Your task to perform on an android device: Open accessibility settings Image 0: 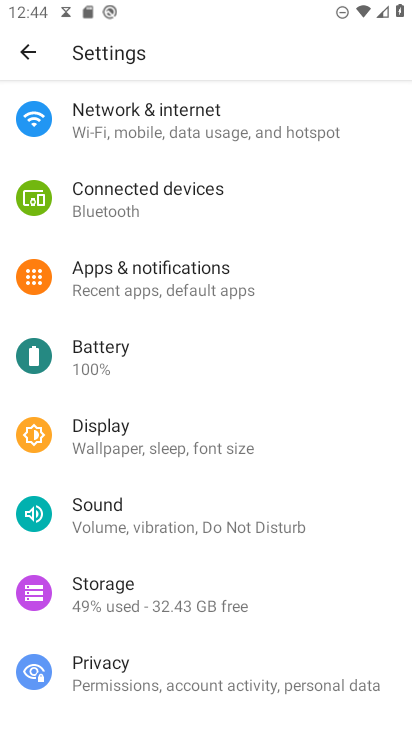
Step 0: press home button
Your task to perform on an android device: Open accessibility settings Image 1: 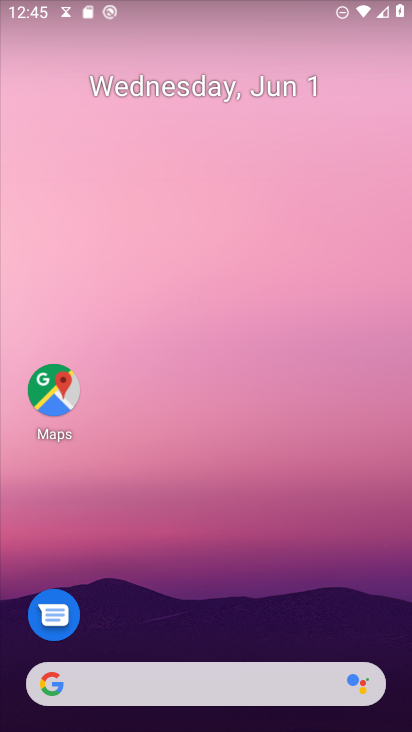
Step 1: drag from (175, 626) to (229, 31)
Your task to perform on an android device: Open accessibility settings Image 2: 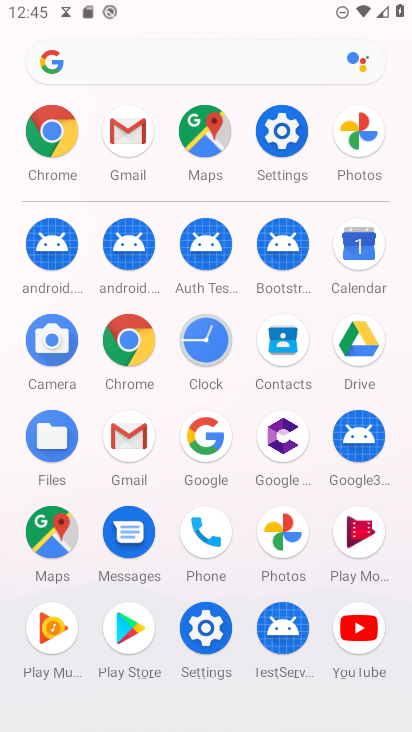
Step 2: click (278, 139)
Your task to perform on an android device: Open accessibility settings Image 3: 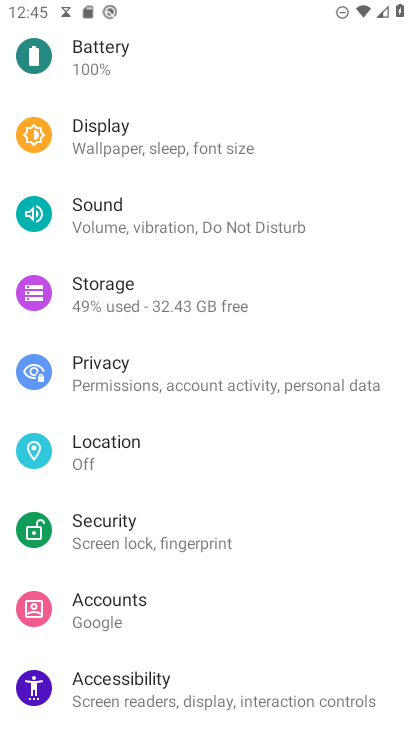
Step 3: drag from (260, 530) to (289, 335)
Your task to perform on an android device: Open accessibility settings Image 4: 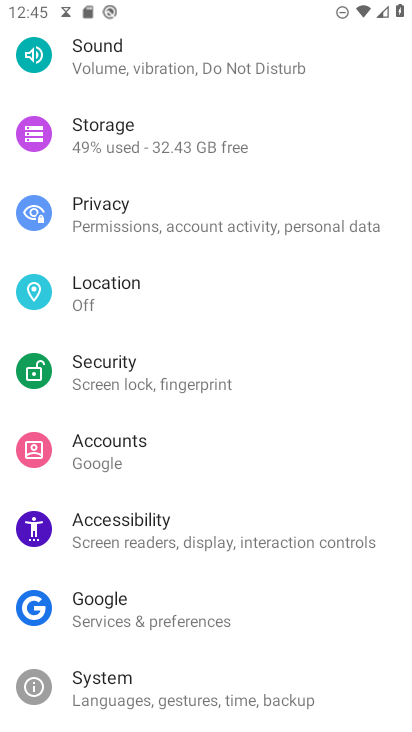
Step 4: click (227, 532)
Your task to perform on an android device: Open accessibility settings Image 5: 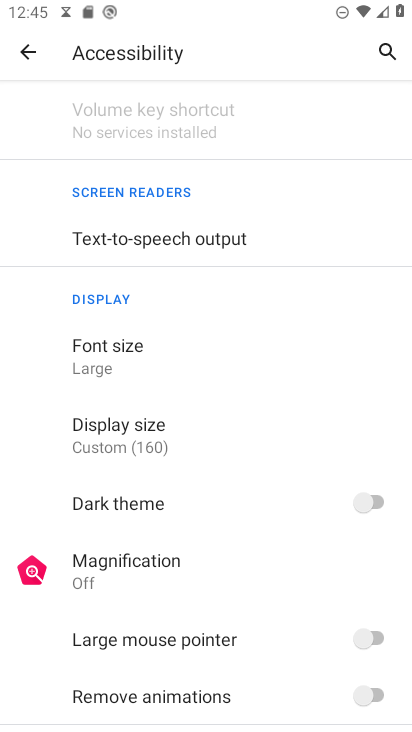
Step 5: task complete